Your task to perform on an android device: Do I have any events tomorrow? Image 0: 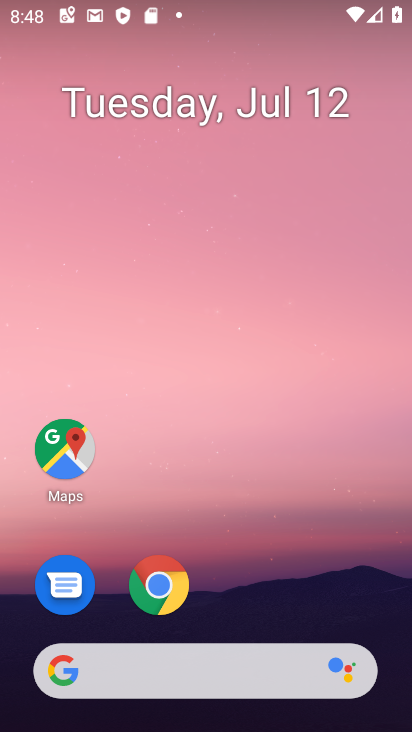
Step 0: drag from (256, 574) to (253, 31)
Your task to perform on an android device: Do I have any events tomorrow? Image 1: 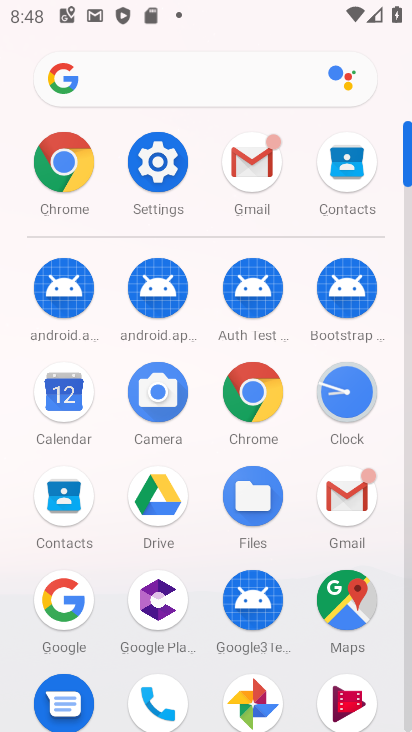
Step 1: click (76, 393)
Your task to perform on an android device: Do I have any events tomorrow? Image 2: 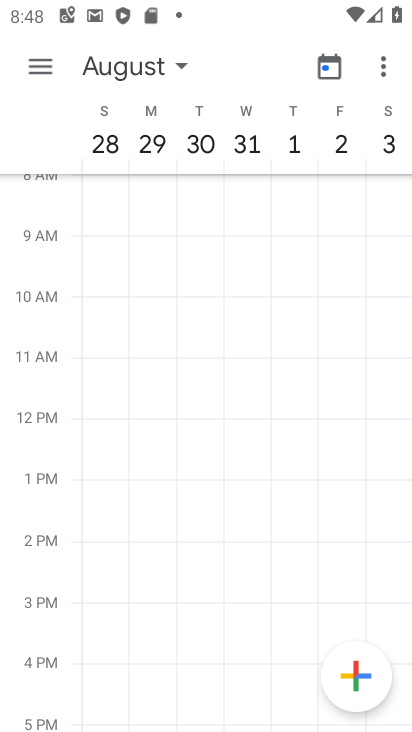
Step 2: click (38, 69)
Your task to perform on an android device: Do I have any events tomorrow? Image 3: 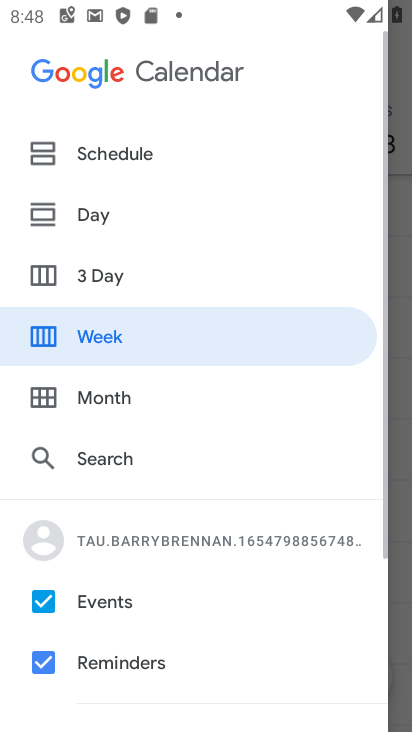
Step 3: click (103, 391)
Your task to perform on an android device: Do I have any events tomorrow? Image 4: 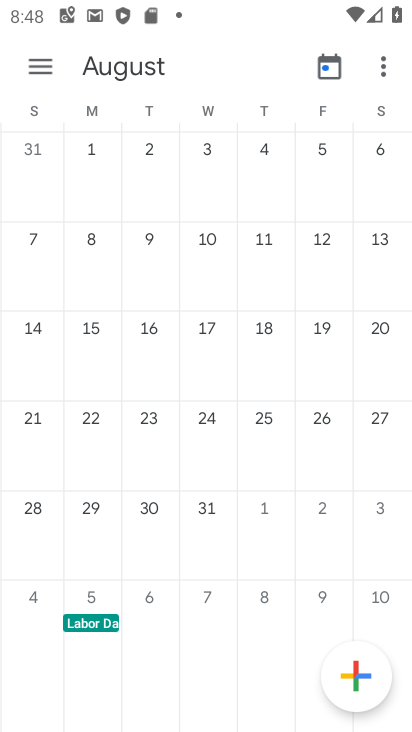
Step 4: drag from (66, 365) to (397, 416)
Your task to perform on an android device: Do I have any events tomorrow? Image 5: 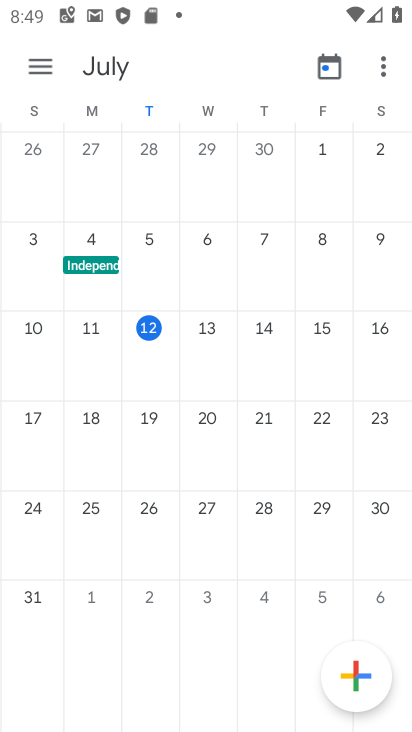
Step 5: click (149, 341)
Your task to perform on an android device: Do I have any events tomorrow? Image 6: 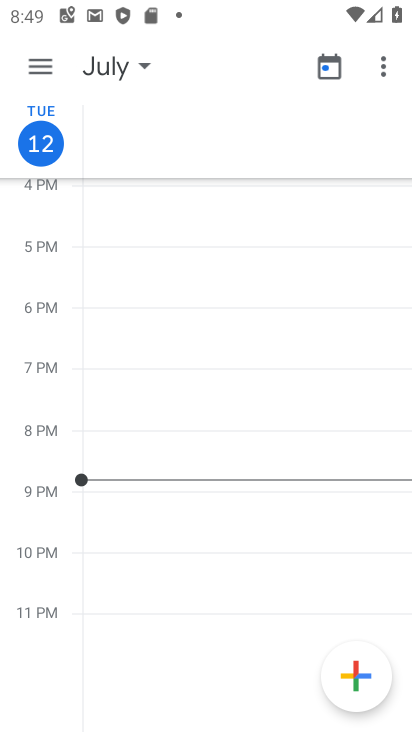
Step 6: click (39, 58)
Your task to perform on an android device: Do I have any events tomorrow? Image 7: 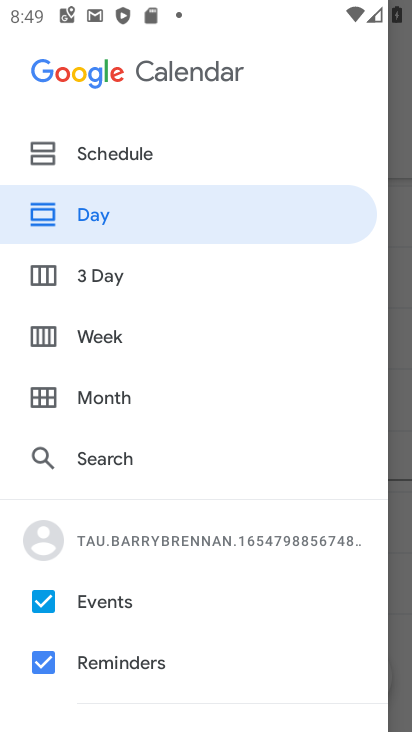
Step 7: click (85, 266)
Your task to perform on an android device: Do I have any events tomorrow? Image 8: 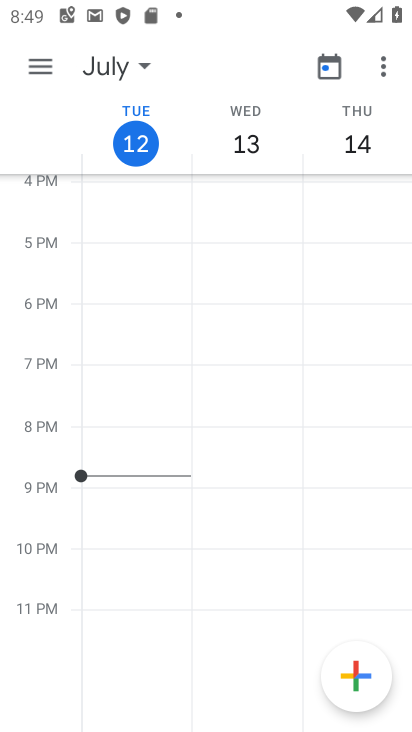
Step 8: task complete